Your task to perform on an android device: Go to accessibility settings Image 0: 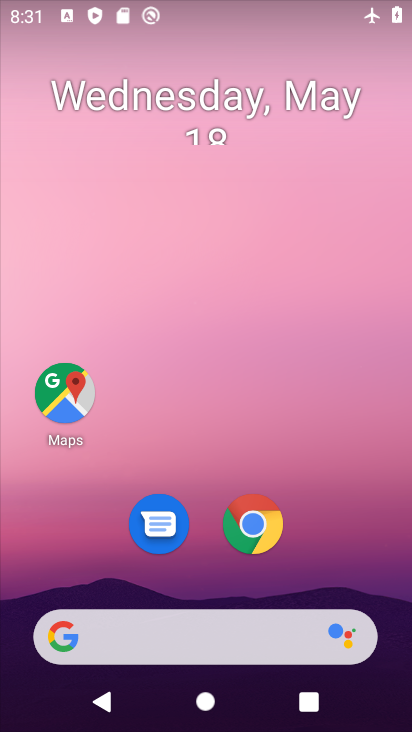
Step 0: drag from (325, 524) to (283, 37)
Your task to perform on an android device: Go to accessibility settings Image 1: 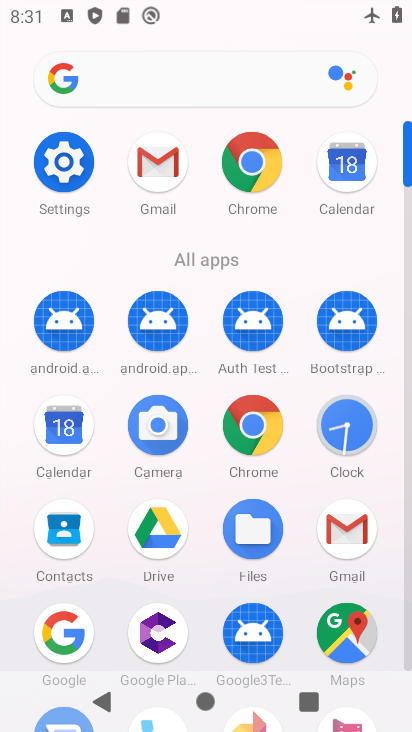
Step 1: click (71, 162)
Your task to perform on an android device: Go to accessibility settings Image 2: 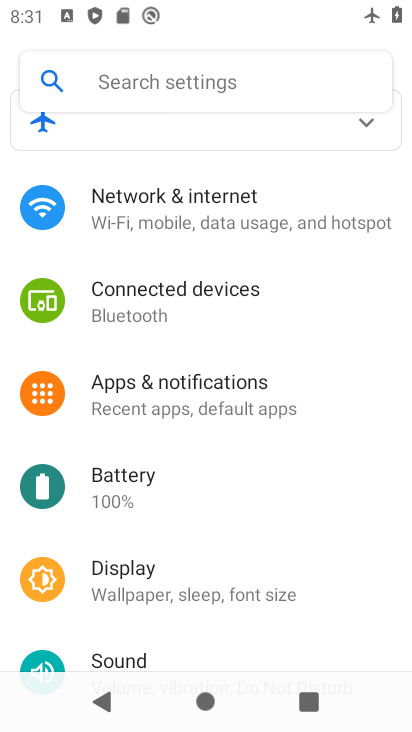
Step 2: drag from (177, 556) to (176, 176)
Your task to perform on an android device: Go to accessibility settings Image 3: 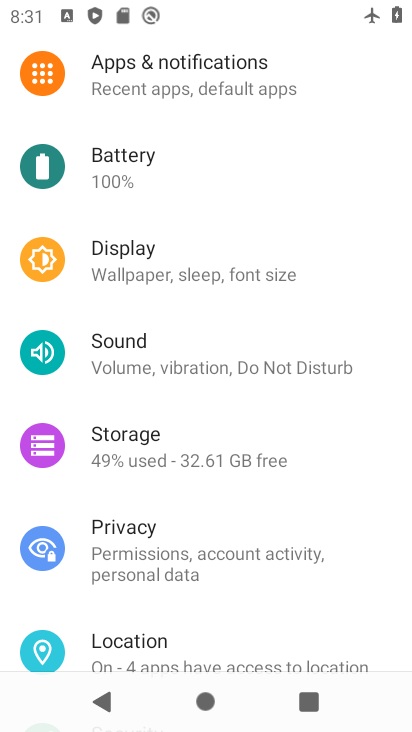
Step 3: drag from (204, 529) to (245, 73)
Your task to perform on an android device: Go to accessibility settings Image 4: 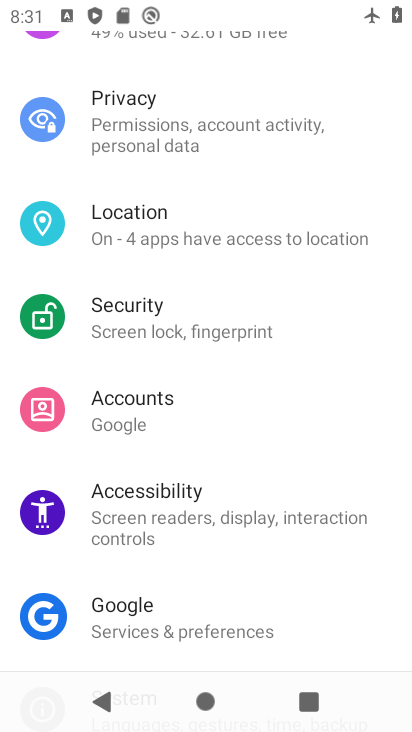
Step 4: click (209, 503)
Your task to perform on an android device: Go to accessibility settings Image 5: 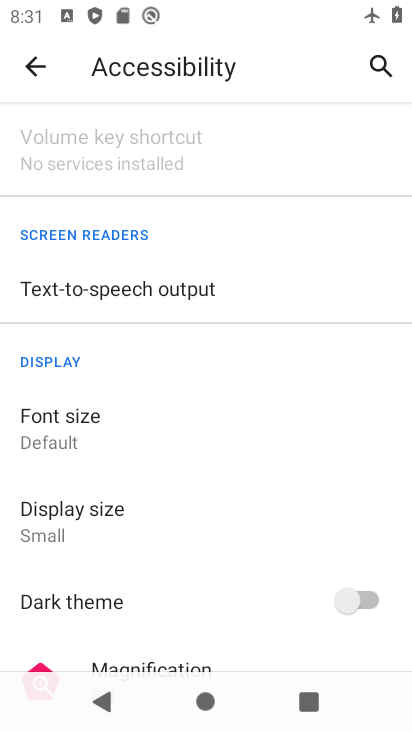
Step 5: task complete